Your task to perform on an android device: Check the weather Image 0: 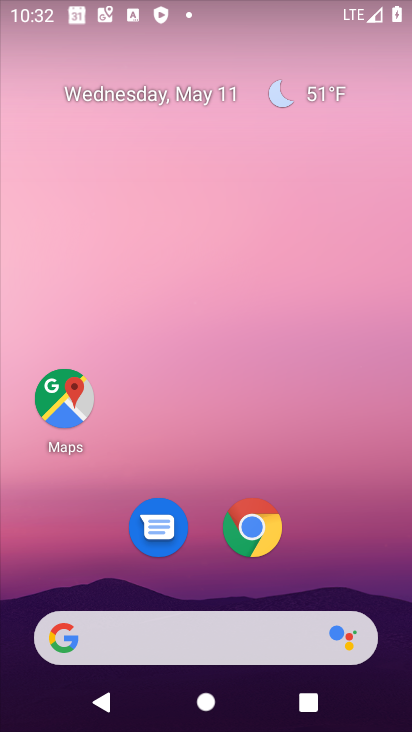
Step 0: click (322, 88)
Your task to perform on an android device: Check the weather Image 1: 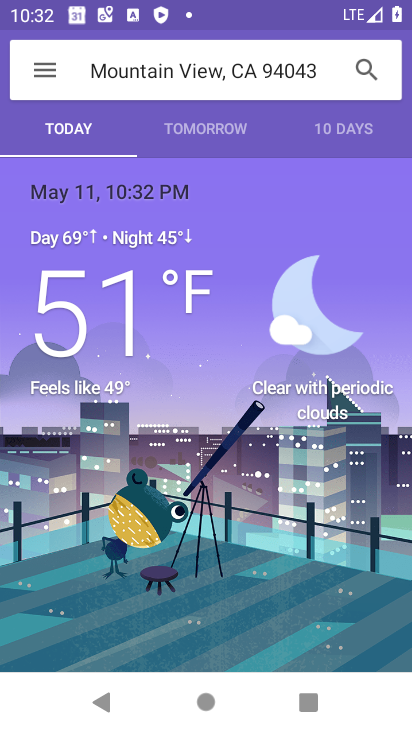
Step 1: task complete